Your task to perform on an android device: Open calendar and show me the second week of next month Image 0: 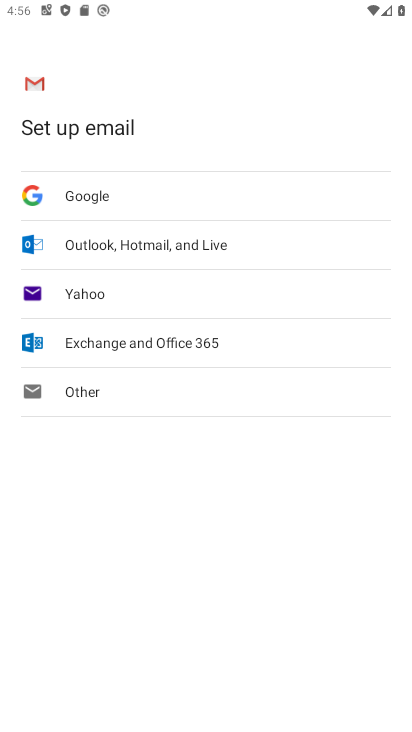
Step 0: press home button
Your task to perform on an android device: Open calendar and show me the second week of next month Image 1: 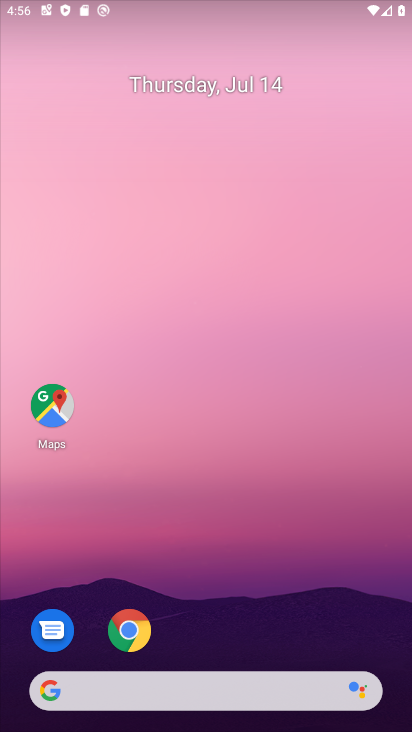
Step 1: drag from (277, 677) to (309, 150)
Your task to perform on an android device: Open calendar and show me the second week of next month Image 2: 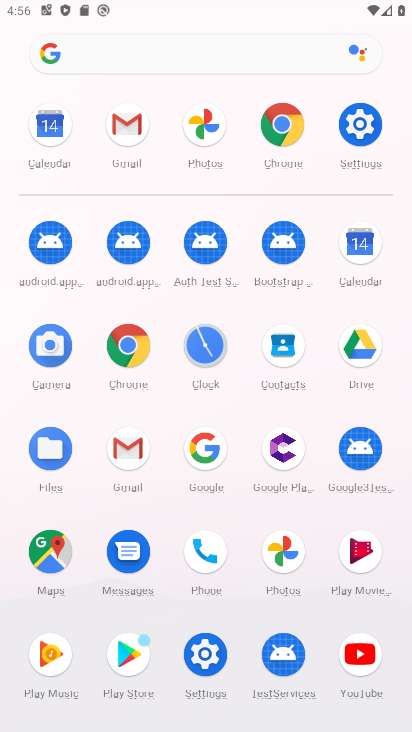
Step 2: click (362, 259)
Your task to perform on an android device: Open calendar and show me the second week of next month Image 3: 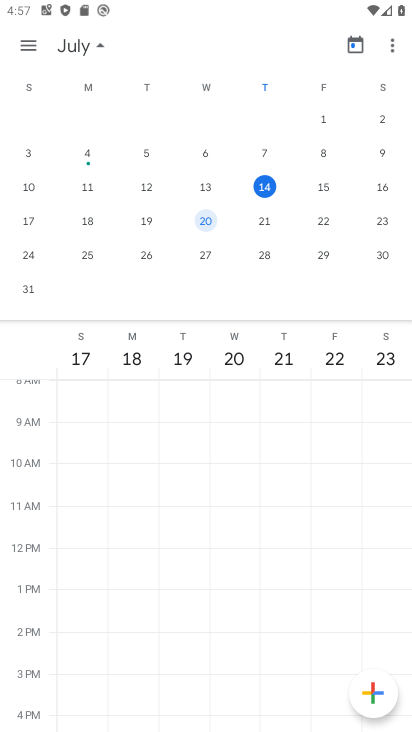
Step 3: drag from (336, 187) to (51, 181)
Your task to perform on an android device: Open calendar and show me the second week of next month Image 4: 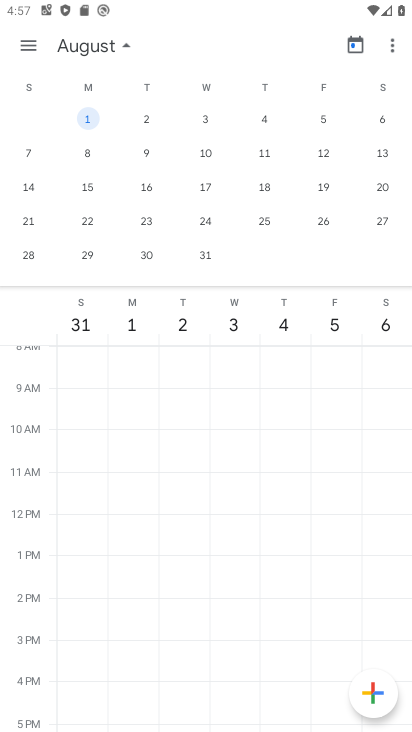
Step 4: click (207, 154)
Your task to perform on an android device: Open calendar and show me the second week of next month Image 5: 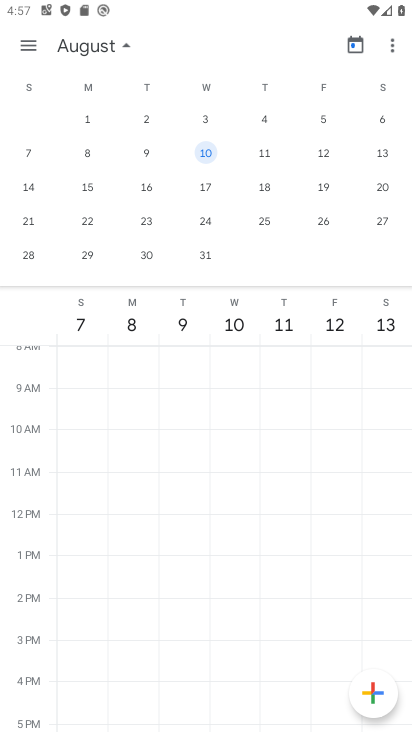
Step 5: task complete